Your task to perform on an android device: Is it going to rain this weekend? Image 0: 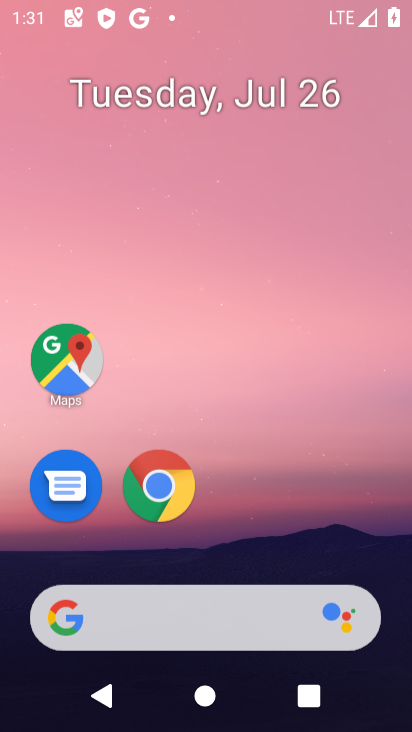
Step 0: press home button
Your task to perform on an android device: Is it going to rain this weekend? Image 1: 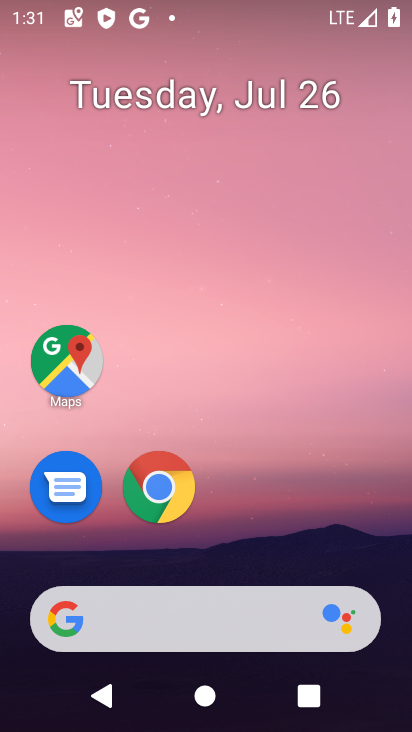
Step 1: press home button
Your task to perform on an android device: Is it going to rain this weekend? Image 2: 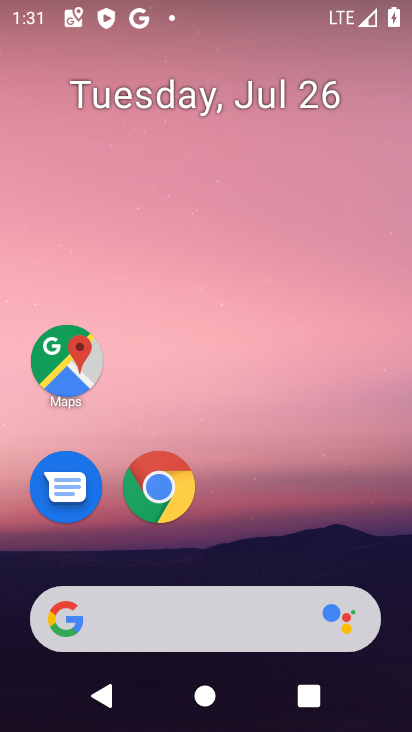
Step 2: drag from (263, 667) to (263, 182)
Your task to perform on an android device: Is it going to rain this weekend? Image 3: 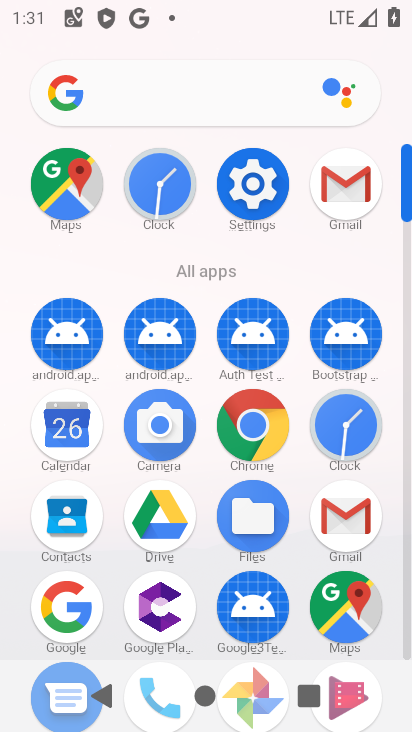
Step 3: drag from (280, 530) to (265, 193)
Your task to perform on an android device: Is it going to rain this weekend? Image 4: 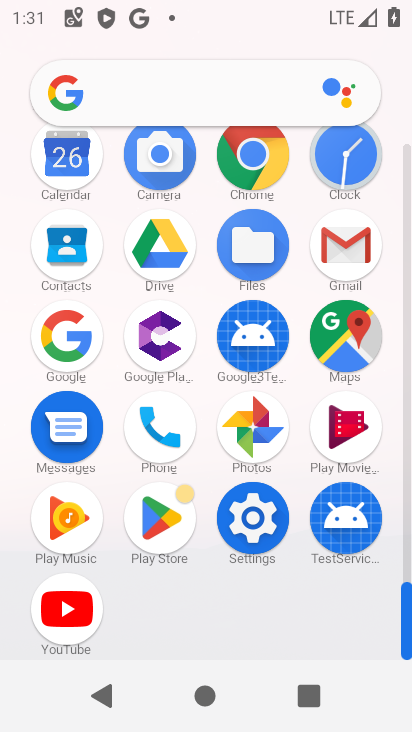
Step 4: click (75, 349)
Your task to perform on an android device: Is it going to rain this weekend? Image 5: 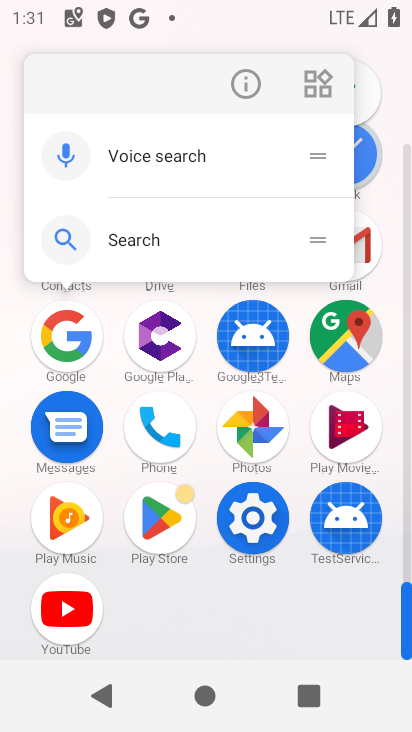
Step 5: click (66, 350)
Your task to perform on an android device: Is it going to rain this weekend? Image 6: 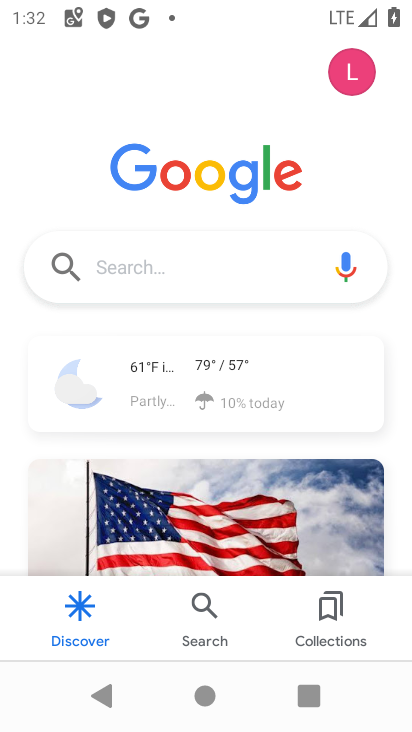
Step 6: click (132, 272)
Your task to perform on an android device: Is it going to rain this weekend? Image 7: 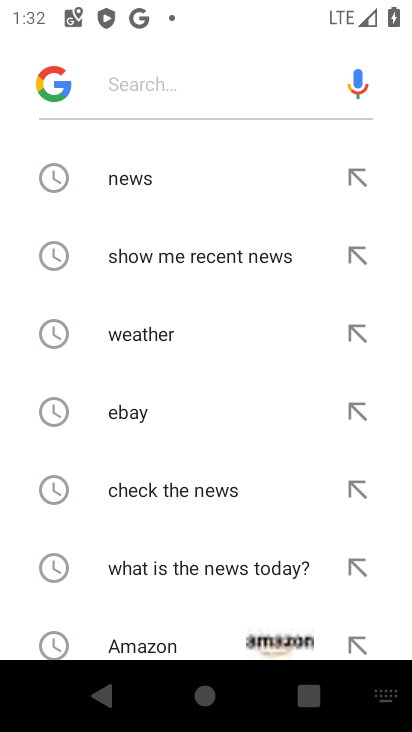
Step 7: click (182, 330)
Your task to perform on an android device: Is it going to rain this weekend? Image 8: 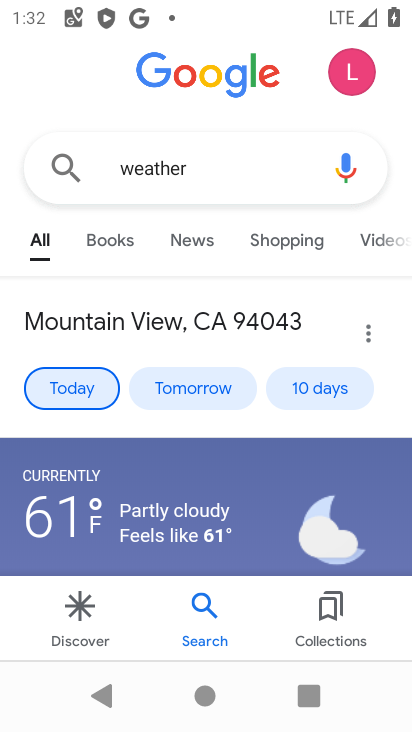
Step 8: click (308, 389)
Your task to perform on an android device: Is it going to rain this weekend? Image 9: 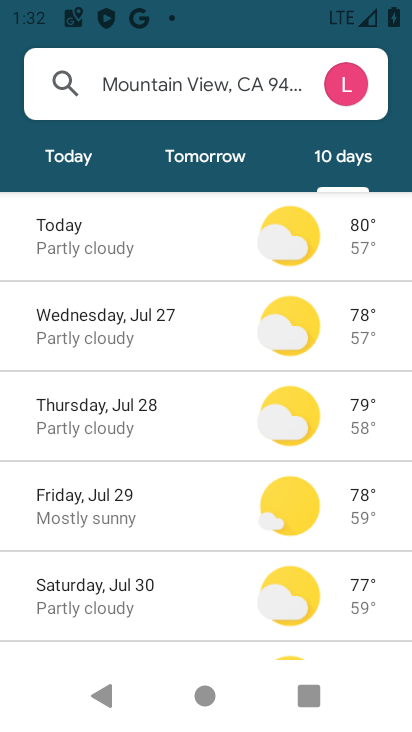
Step 9: task complete